Your task to perform on an android device: What's the price of the new iPhone on eBay? Image 0: 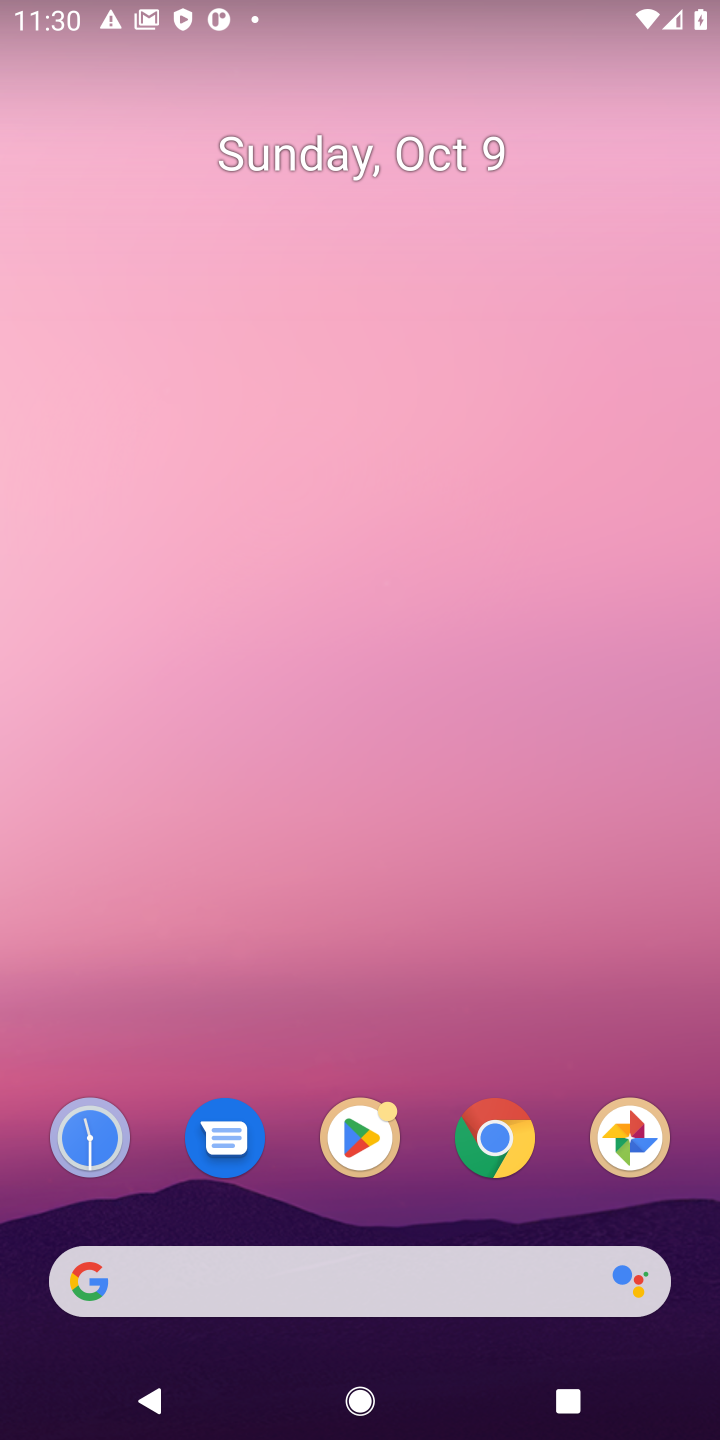
Step 0: click (520, 1134)
Your task to perform on an android device: What's the price of the new iPhone on eBay? Image 1: 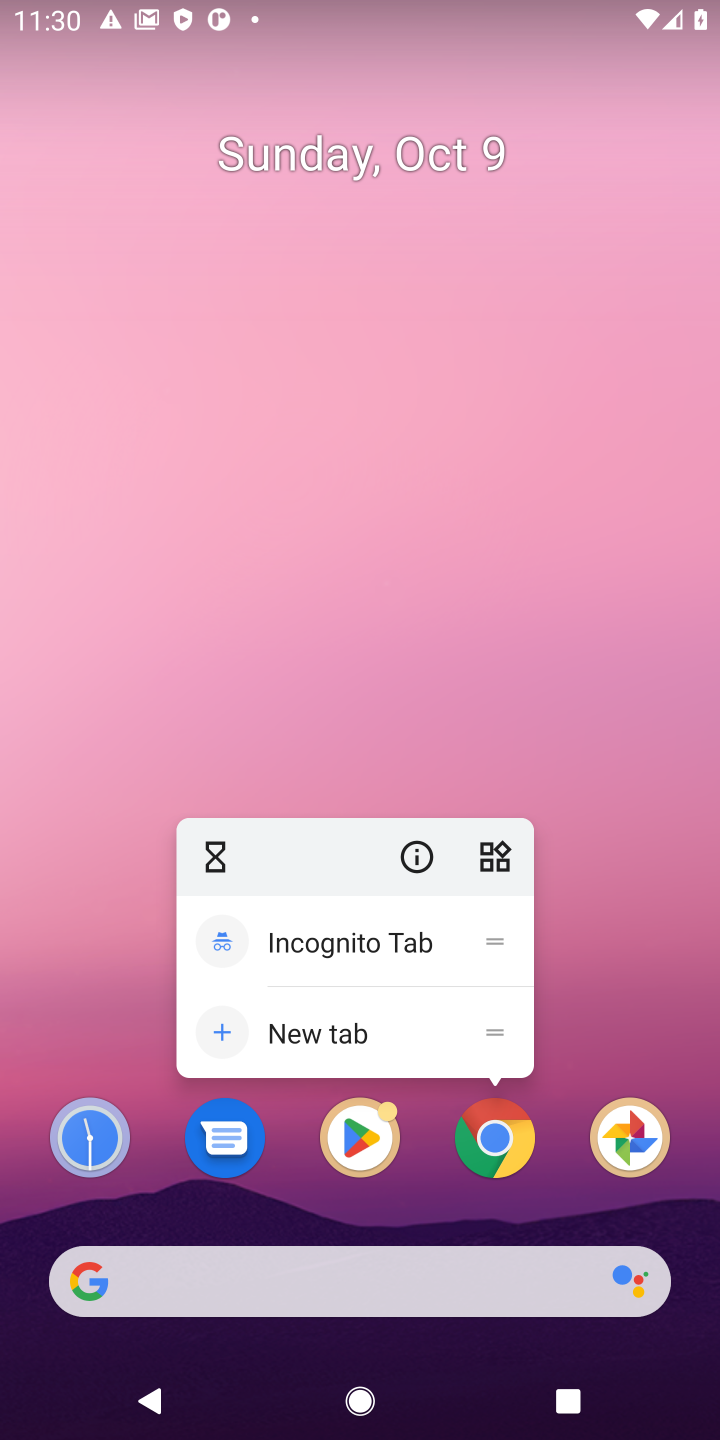
Step 1: click (520, 1134)
Your task to perform on an android device: What's the price of the new iPhone on eBay? Image 2: 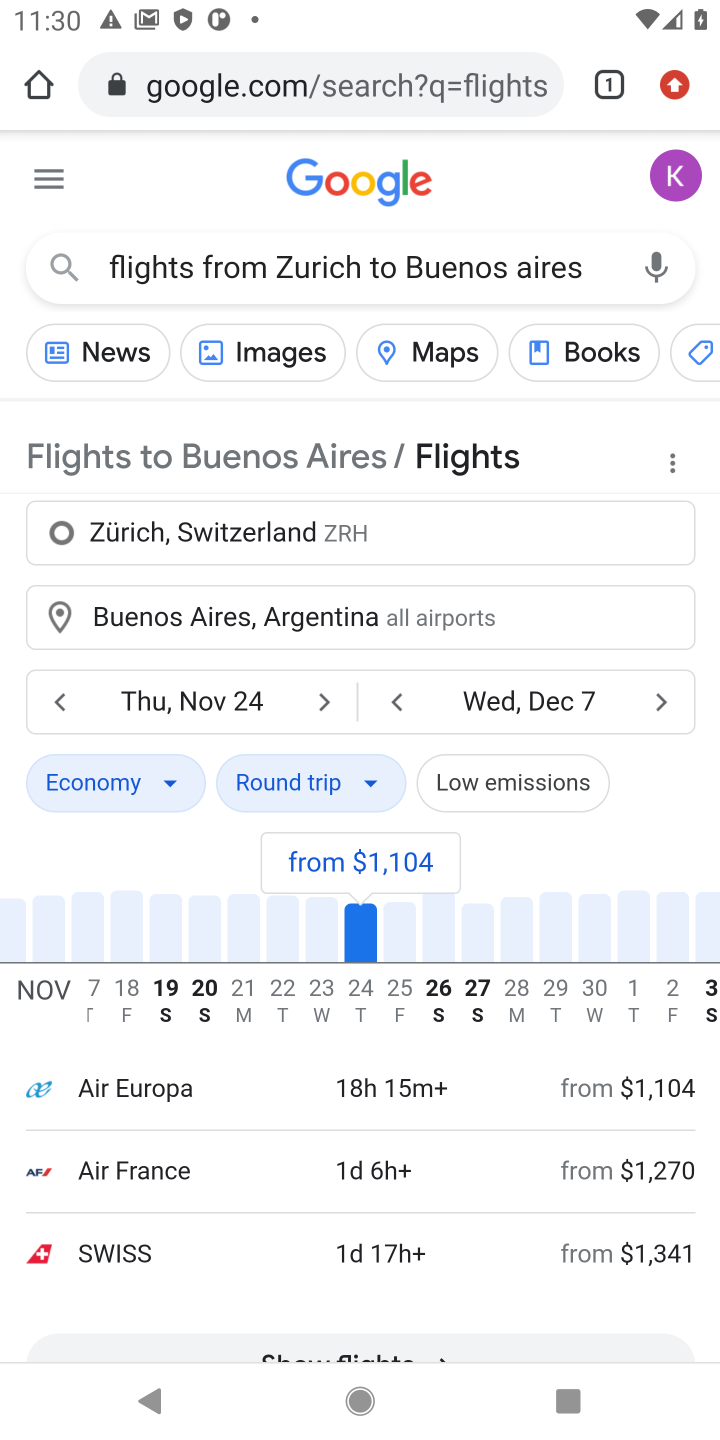
Step 2: click (337, 89)
Your task to perform on an android device: What's the price of the new iPhone on eBay? Image 3: 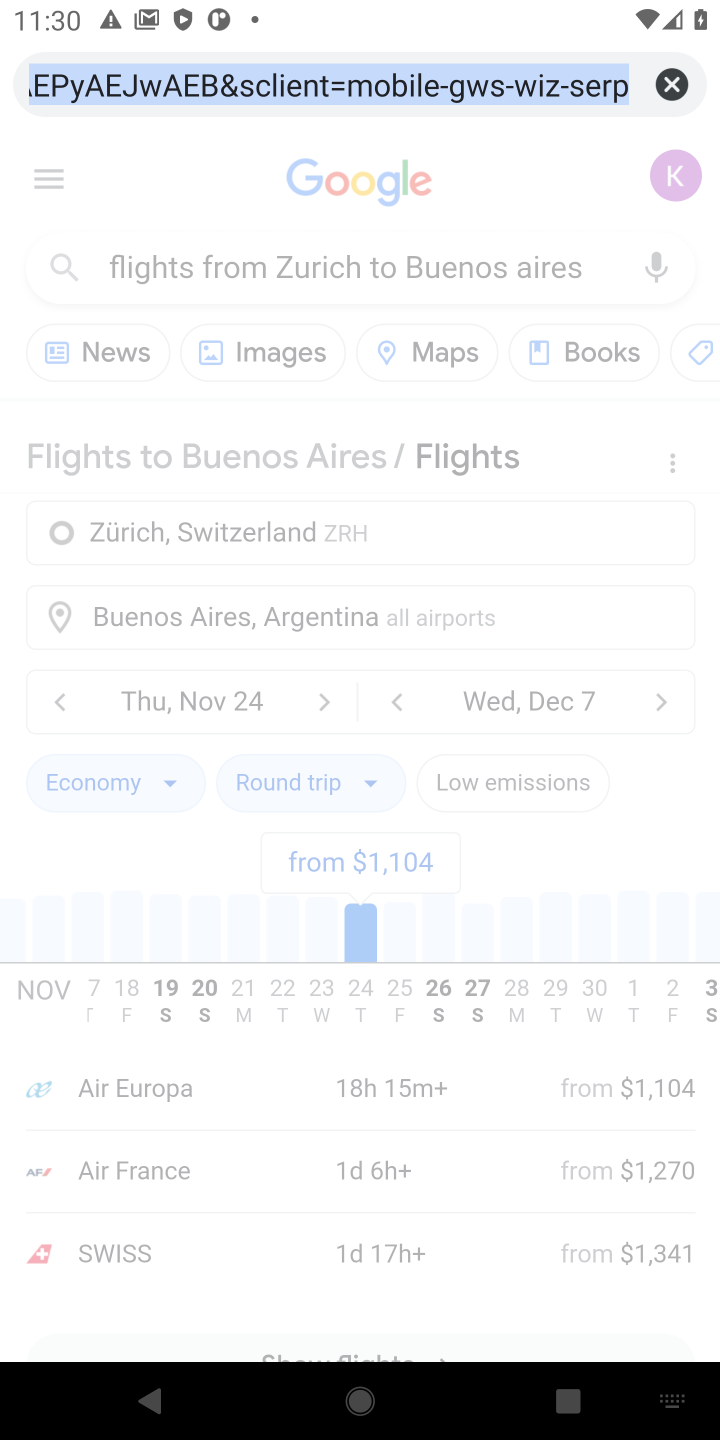
Step 3: type "What's the price of the new iPhone on eBay?"
Your task to perform on an android device: What's the price of the new iPhone on eBay? Image 4: 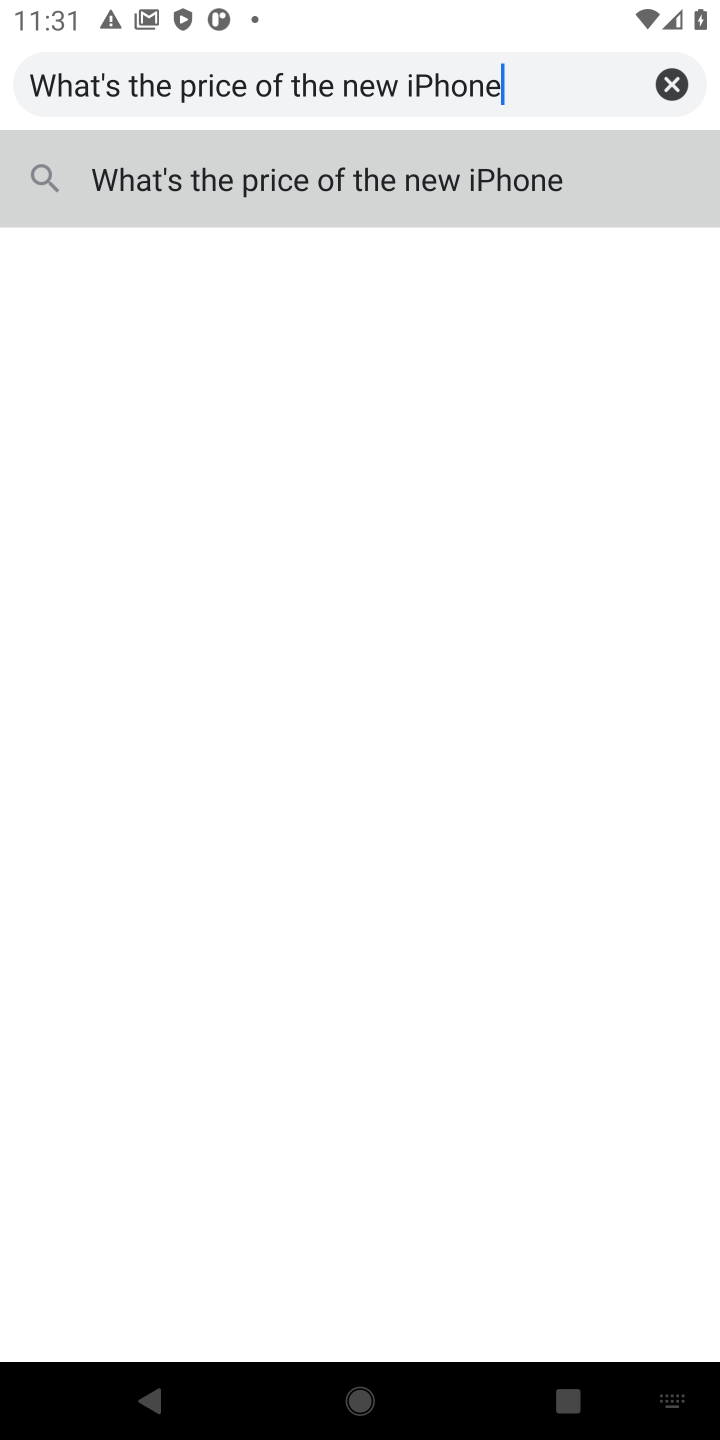
Step 4: press enter
Your task to perform on an android device: What's the price of the new iPhone on eBay? Image 5: 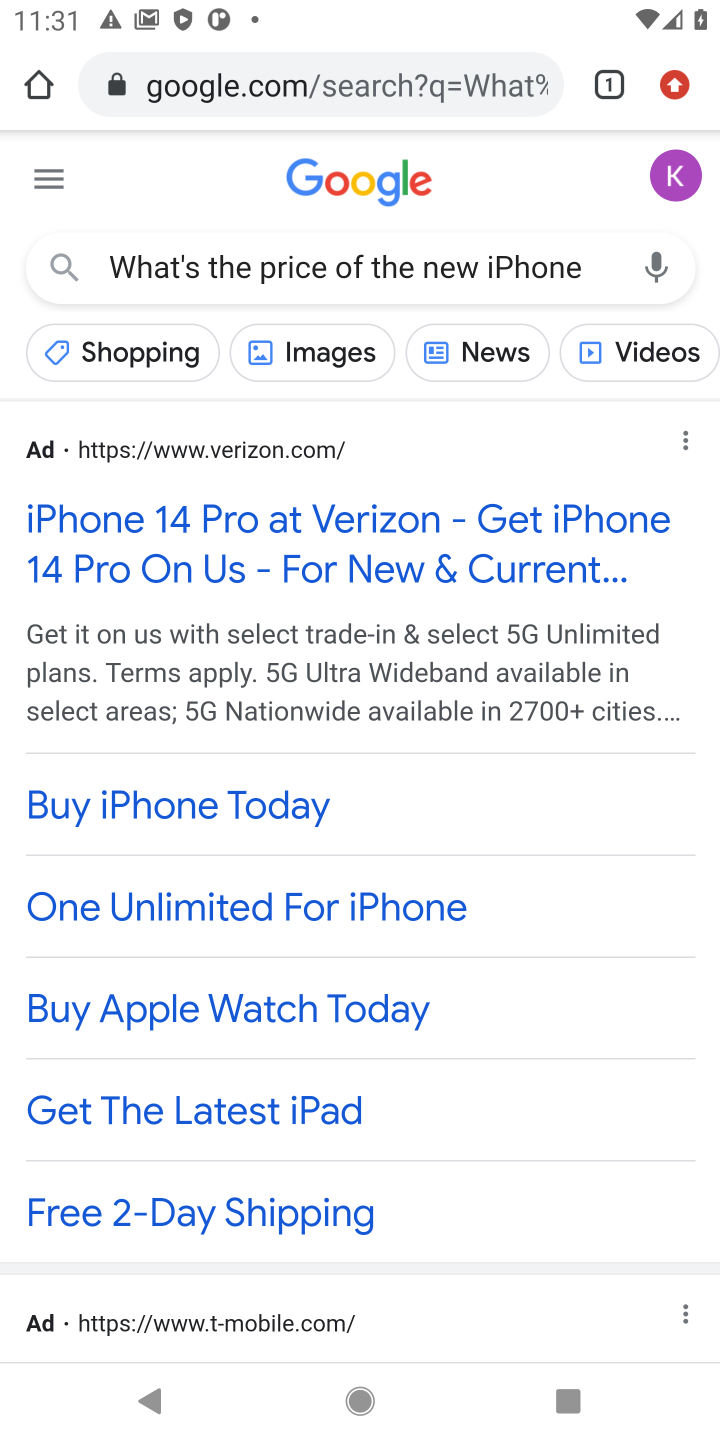
Step 5: drag from (446, 1081) to (325, 440)
Your task to perform on an android device: What's the price of the new iPhone on eBay? Image 6: 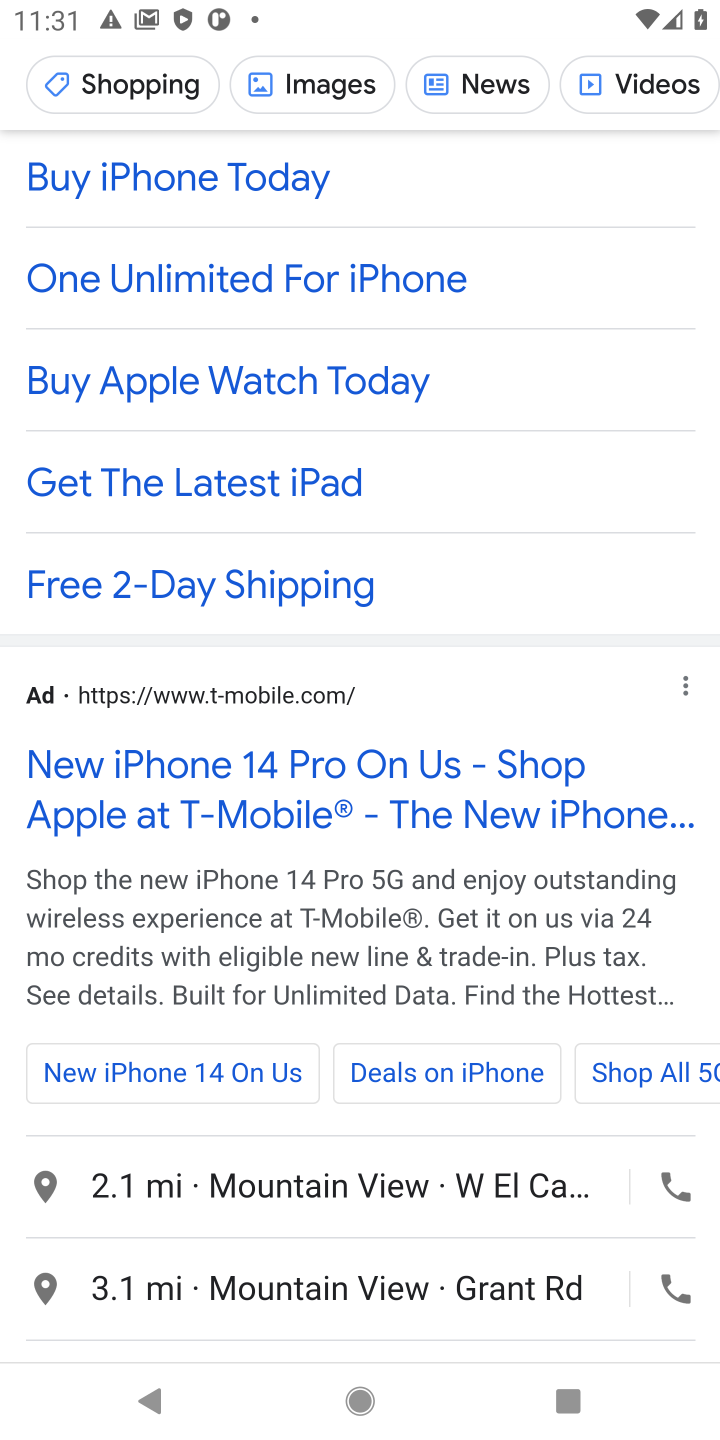
Step 6: drag from (355, 580) to (435, 1265)
Your task to perform on an android device: What's the price of the new iPhone on eBay? Image 7: 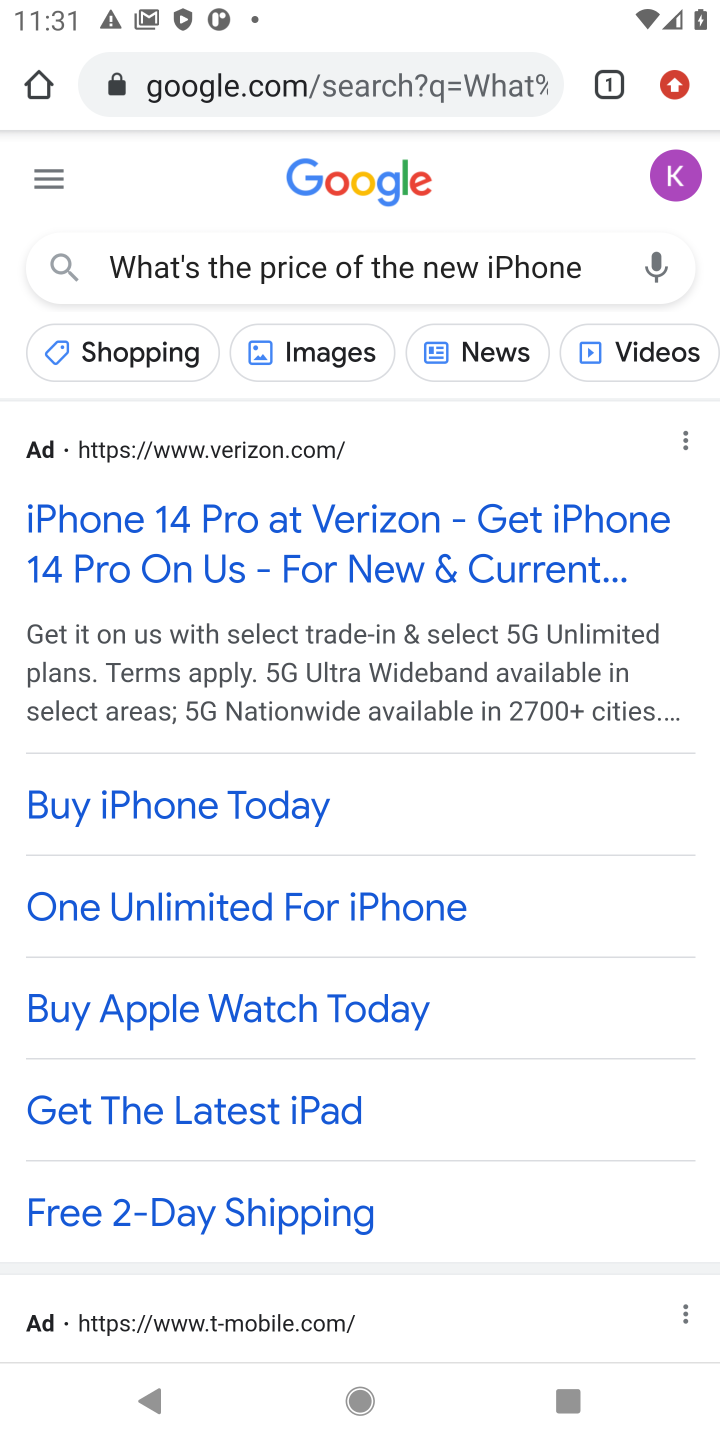
Step 7: drag from (437, 348) to (434, 999)
Your task to perform on an android device: What's the price of the new iPhone on eBay? Image 8: 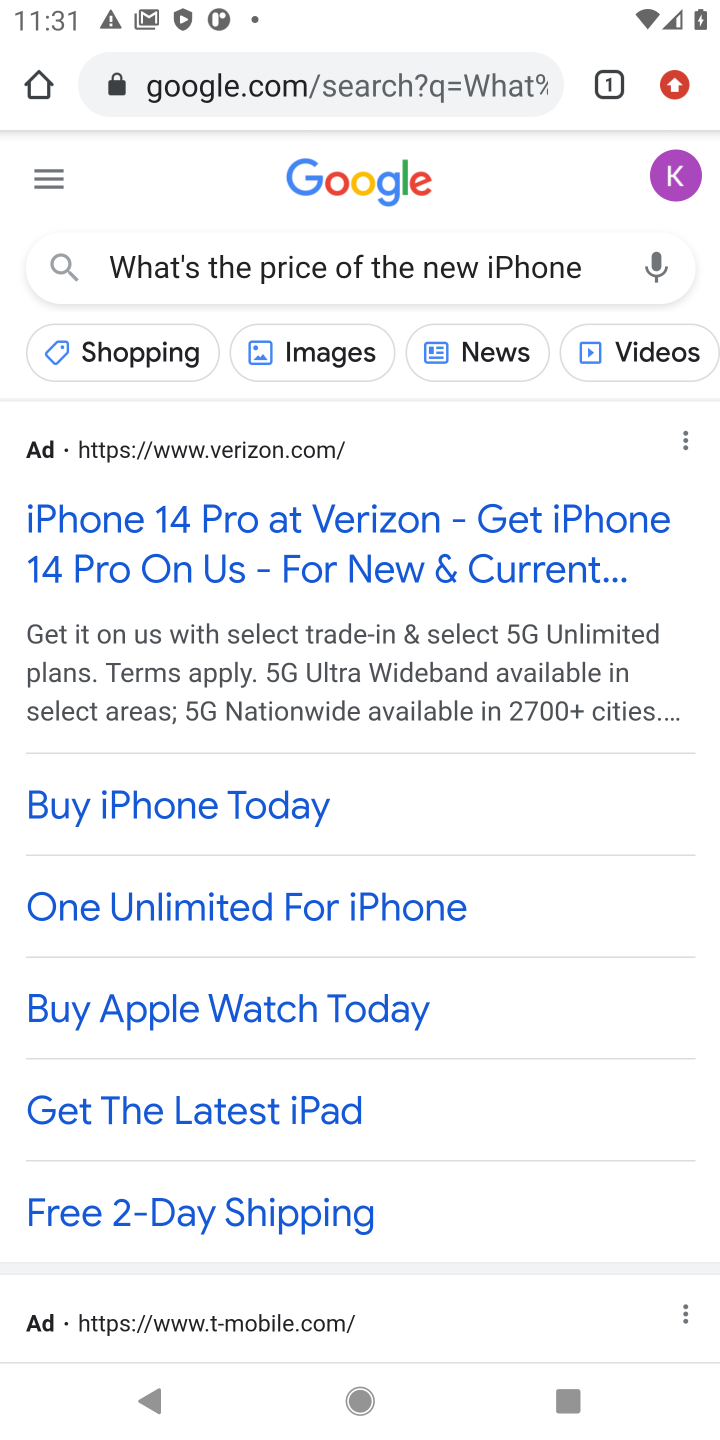
Step 8: click (579, 259)
Your task to perform on an android device: What's the price of the new iPhone on eBay? Image 9: 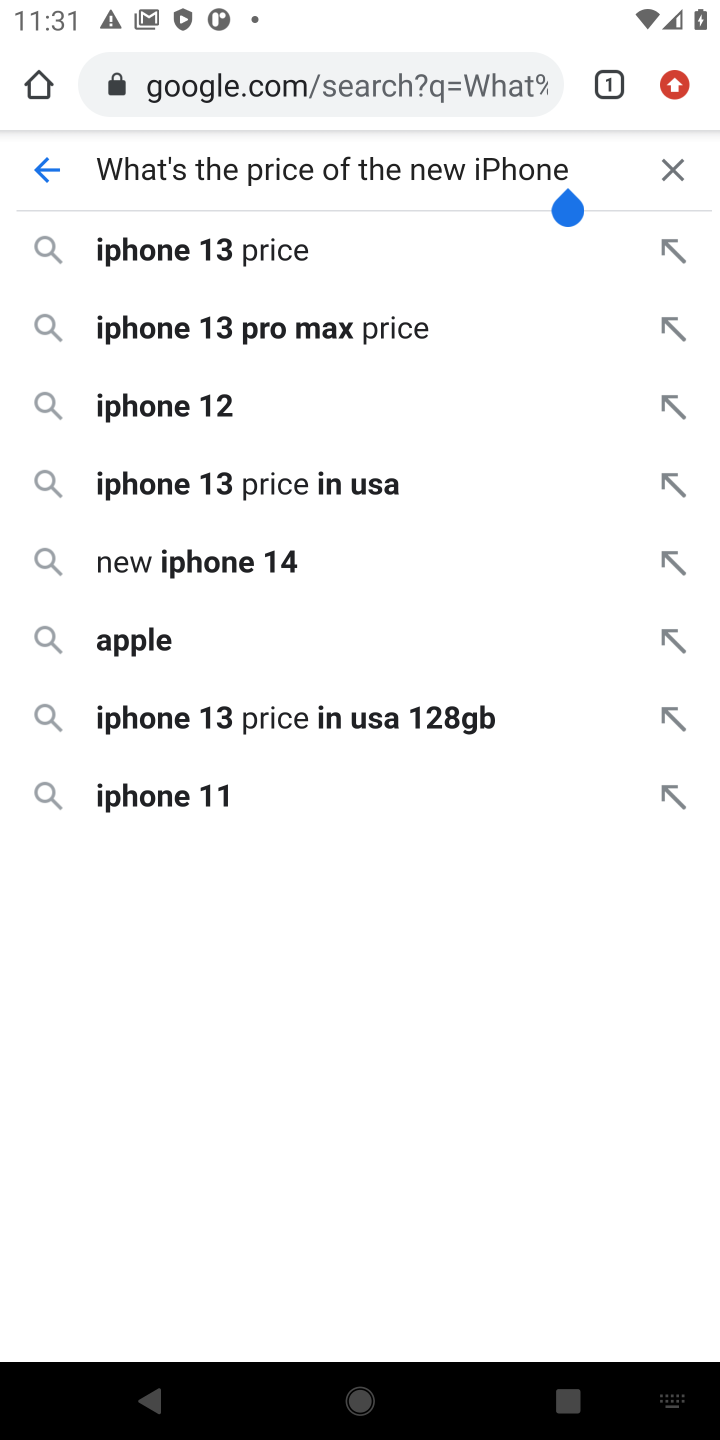
Step 9: type " on ebay"
Your task to perform on an android device: What's the price of the new iPhone on eBay? Image 10: 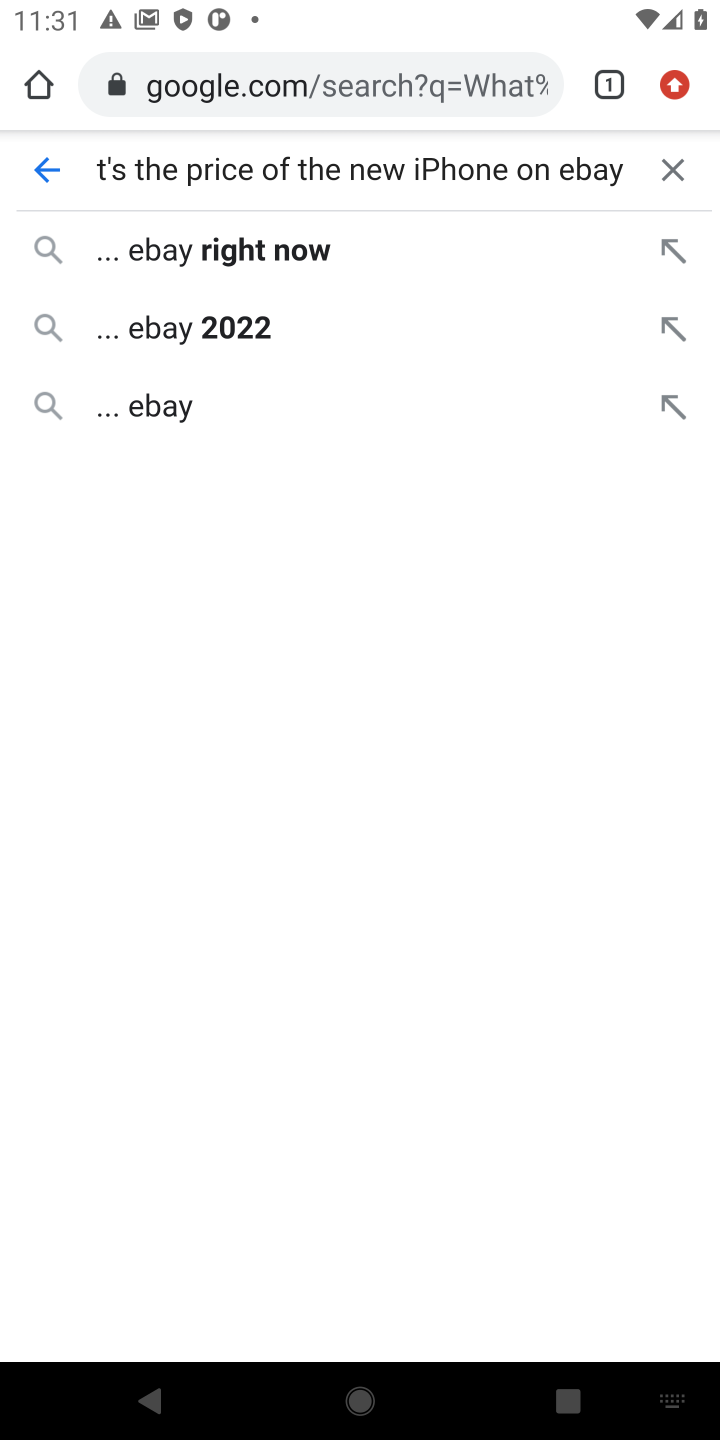
Step 10: press enter
Your task to perform on an android device: What's the price of the new iPhone on eBay? Image 11: 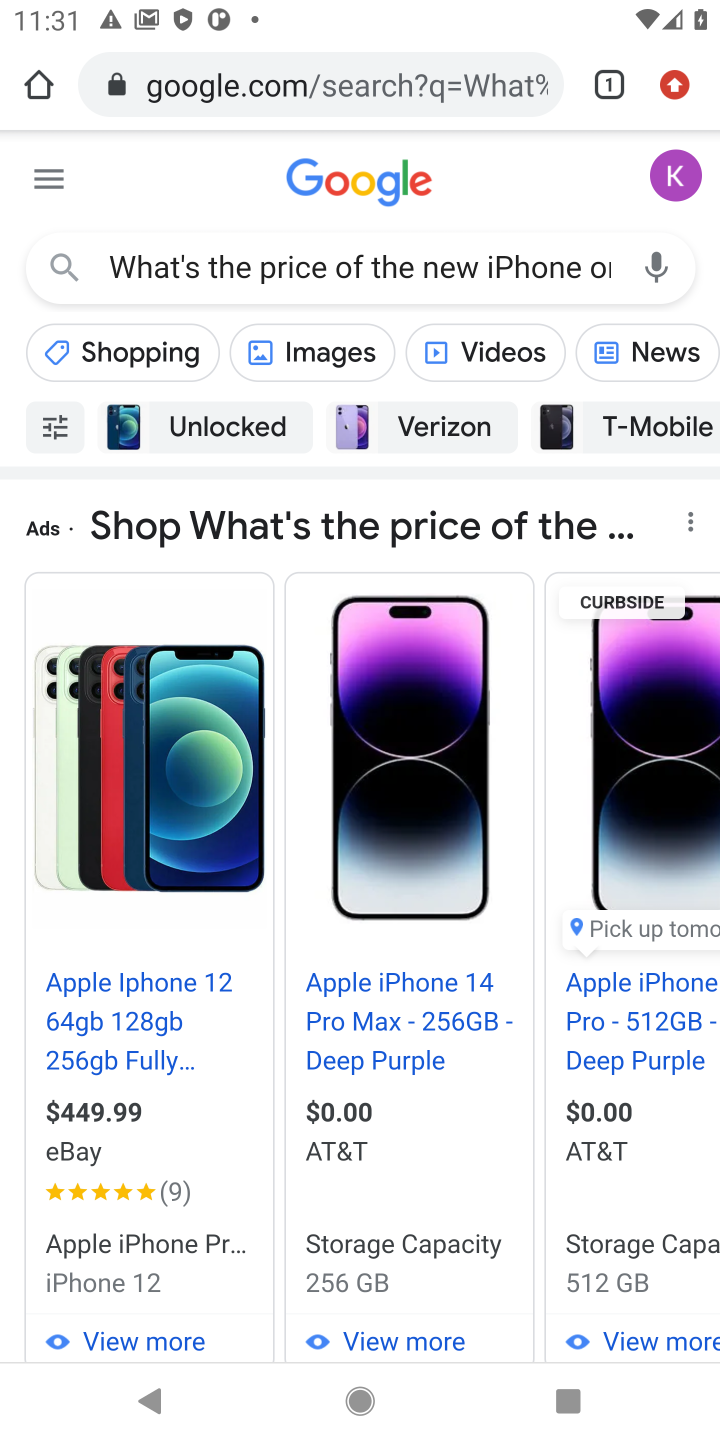
Step 11: click (119, 1180)
Your task to perform on an android device: What's the price of the new iPhone on eBay? Image 12: 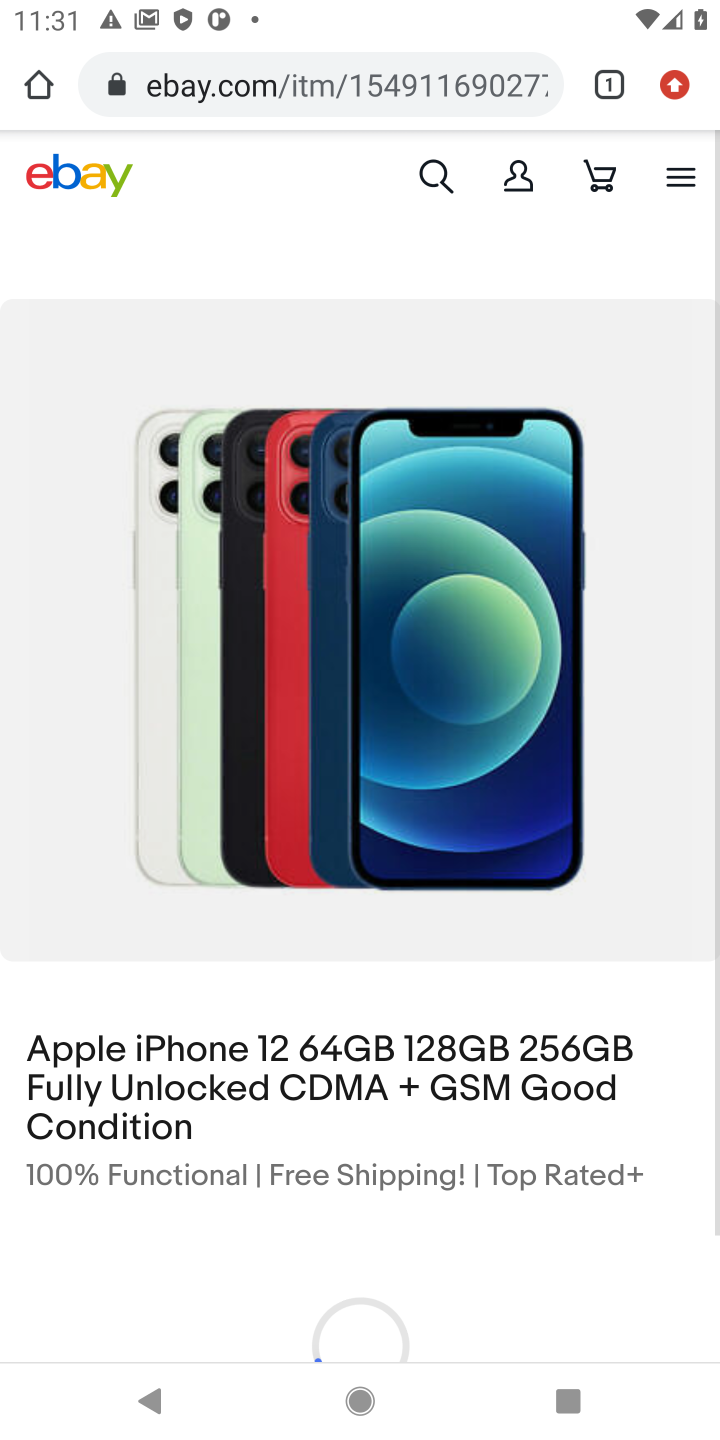
Step 12: task complete